Your task to perform on an android device: refresh tabs in the chrome app Image 0: 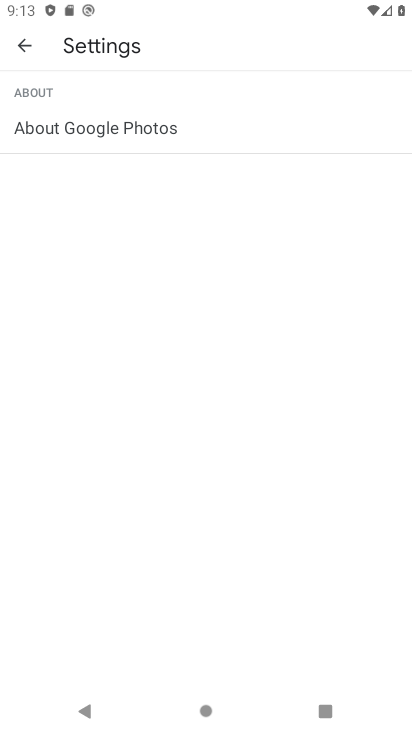
Step 0: press home button
Your task to perform on an android device: refresh tabs in the chrome app Image 1: 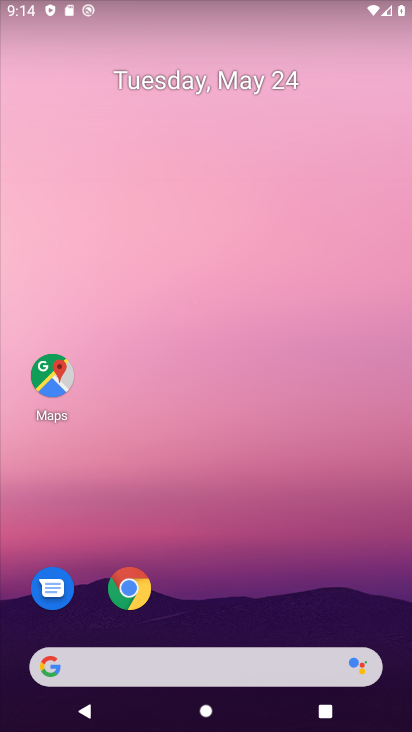
Step 1: click (113, 589)
Your task to perform on an android device: refresh tabs in the chrome app Image 2: 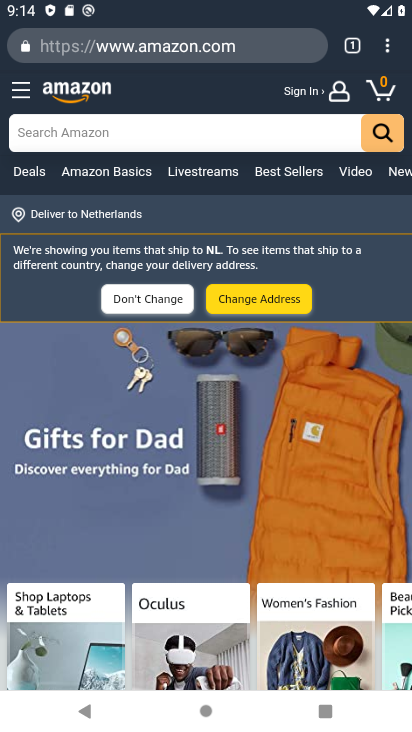
Step 2: click (386, 41)
Your task to perform on an android device: refresh tabs in the chrome app Image 3: 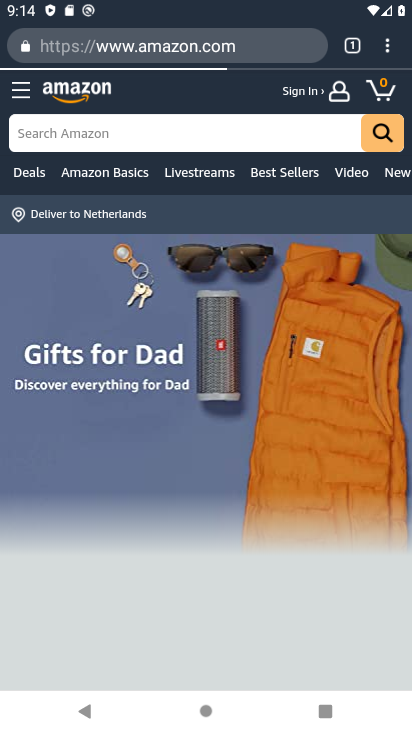
Step 3: click (390, 41)
Your task to perform on an android device: refresh tabs in the chrome app Image 4: 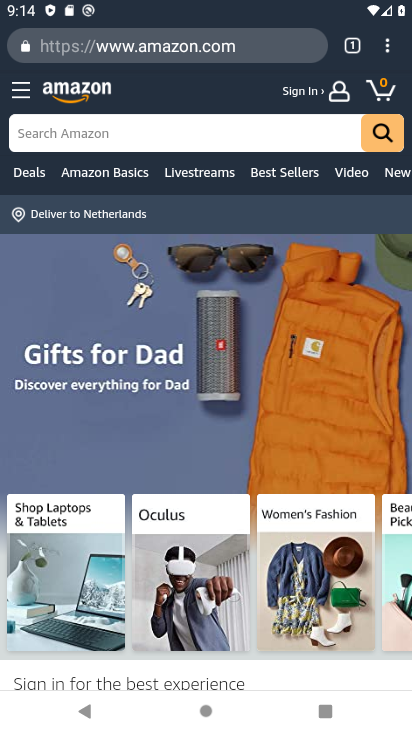
Step 4: task complete